Your task to perform on an android device: show emergency info Image 0: 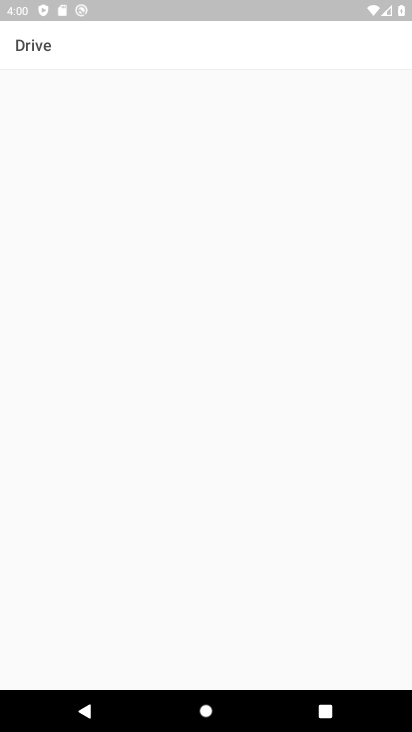
Step 0: press home button
Your task to perform on an android device: show emergency info Image 1: 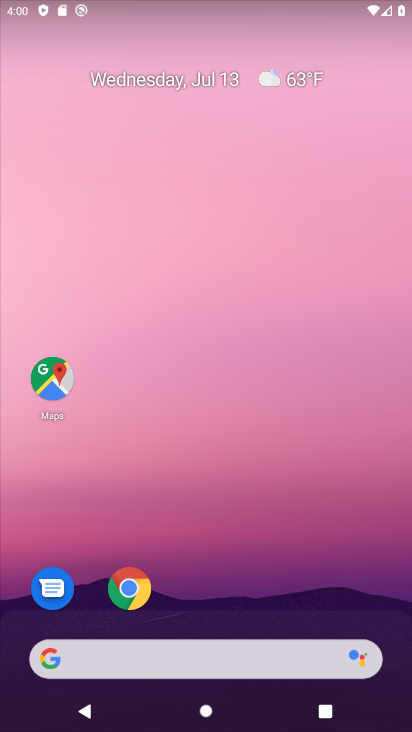
Step 1: drag from (193, 660) to (250, 88)
Your task to perform on an android device: show emergency info Image 2: 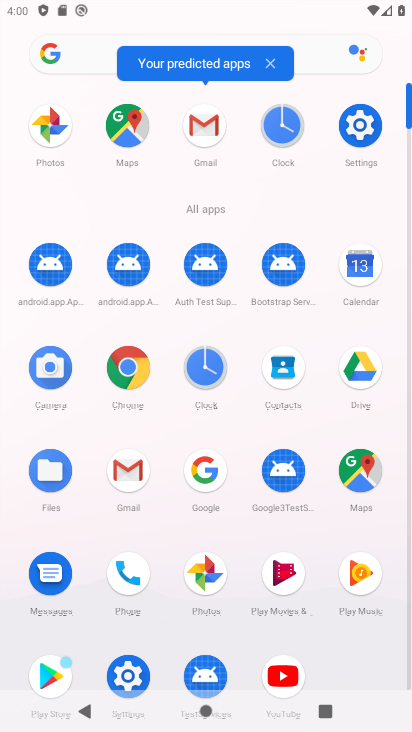
Step 2: click (361, 126)
Your task to perform on an android device: show emergency info Image 3: 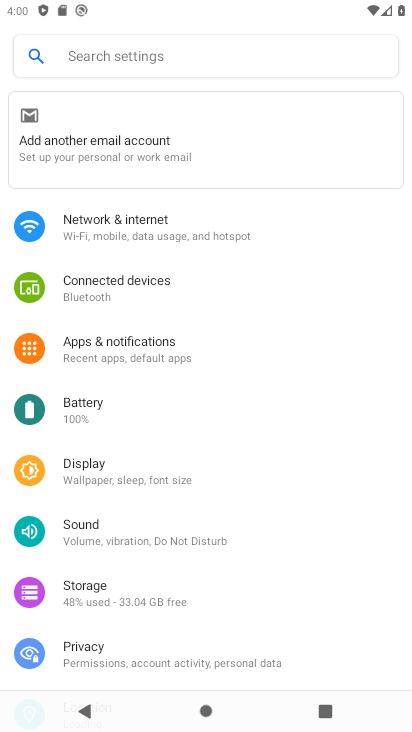
Step 3: drag from (121, 441) to (157, 347)
Your task to perform on an android device: show emergency info Image 4: 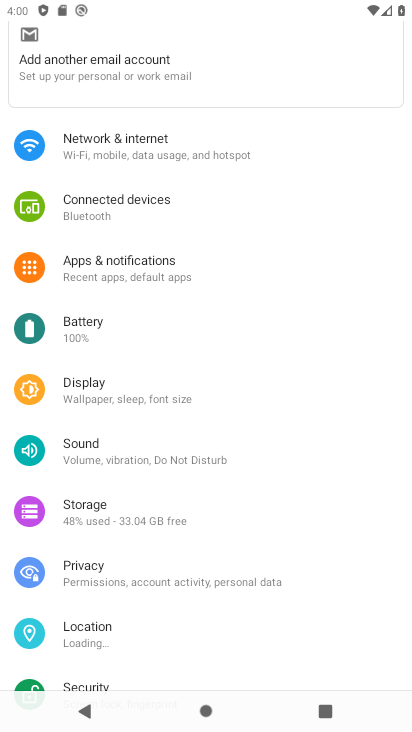
Step 4: drag from (121, 478) to (185, 385)
Your task to perform on an android device: show emergency info Image 5: 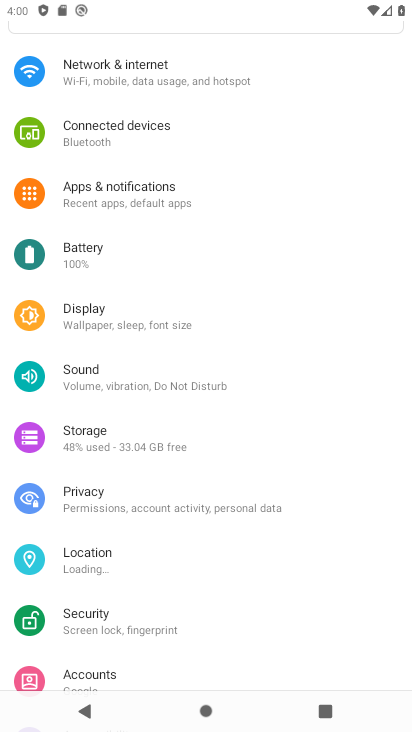
Step 5: drag from (145, 463) to (192, 376)
Your task to perform on an android device: show emergency info Image 6: 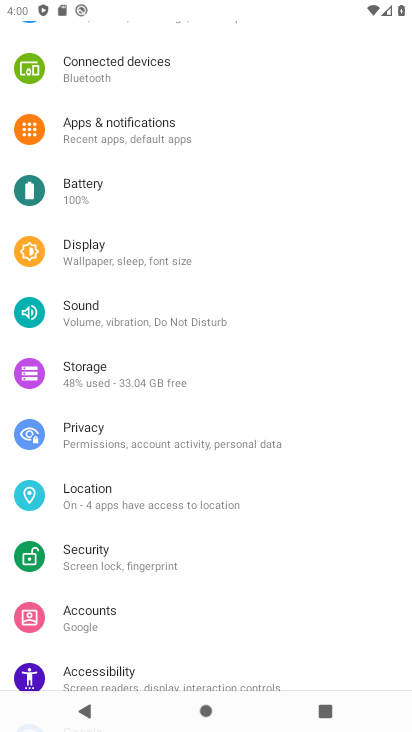
Step 6: drag from (127, 527) to (183, 430)
Your task to perform on an android device: show emergency info Image 7: 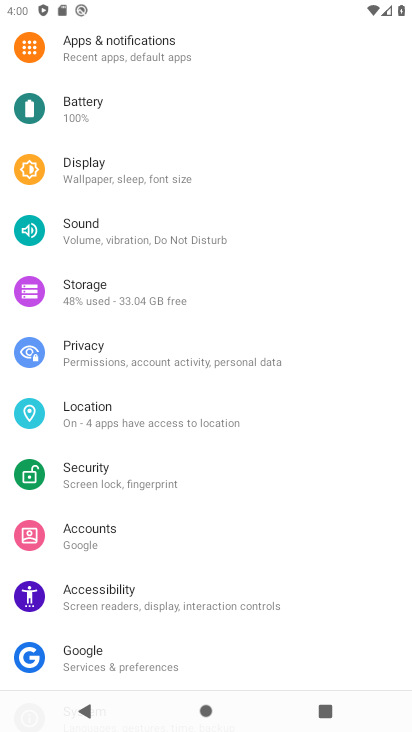
Step 7: drag from (156, 529) to (180, 439)
Your task to perform on an android device: show emergency info Image 8: 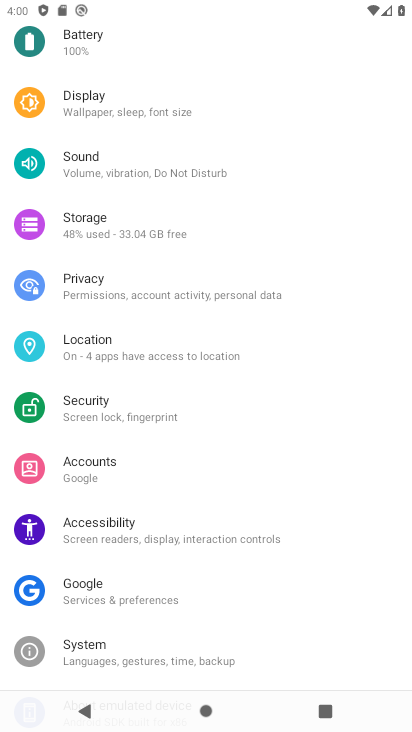
Step 8: drag from (130, 559) to (174, 435)
Your task to perform on an android device: show emergency info Image 9: 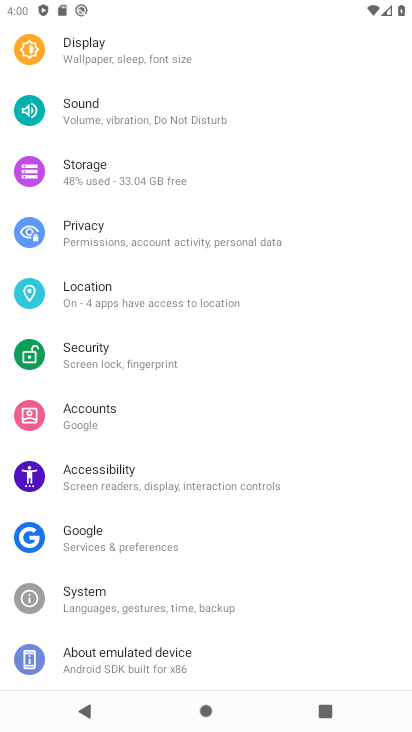
Step 9: click (134, 648)
Your task to perform on an android device: show emergency info Image 10: 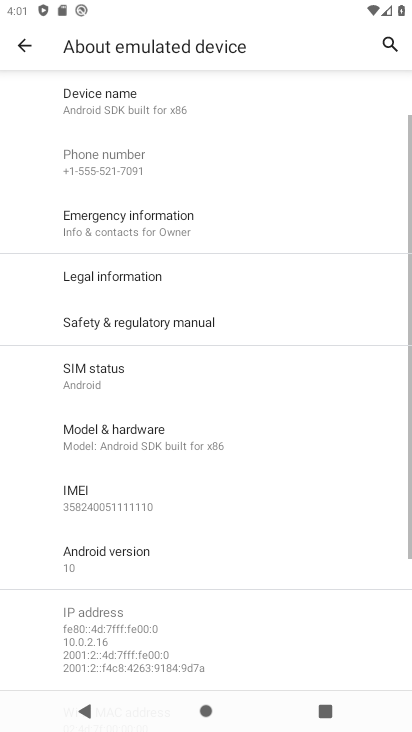
Step 10: click (150, 226)
Your task to perform on an android device: show emergency info Image 11: 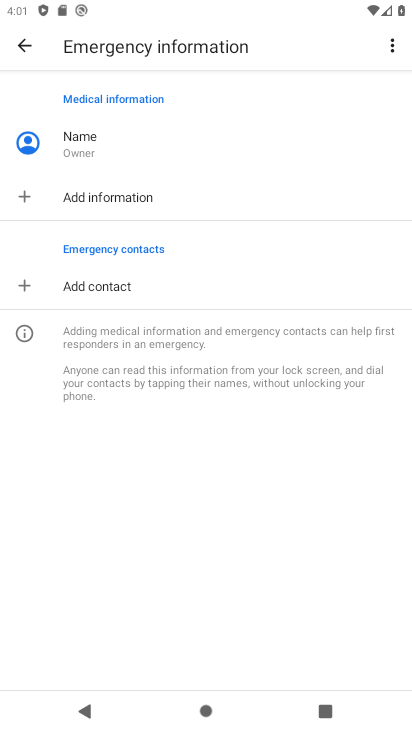
Step 11: task complete